Your task to perform on an android device: Go to settings Image 0: 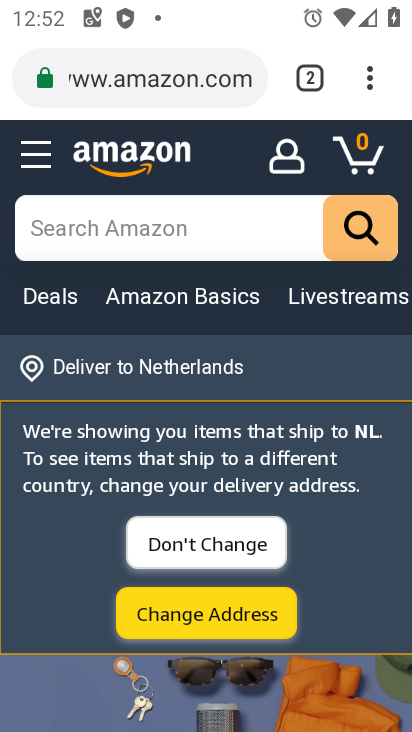
Step 0: press back button
Your task to perform on an android device: Go to settings Image 1: 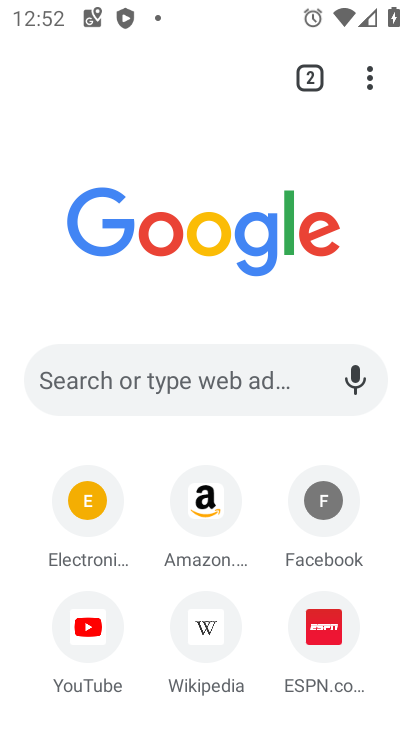
Step 1: press back button
Your task to perform on an android device: Go to settings Image 2: 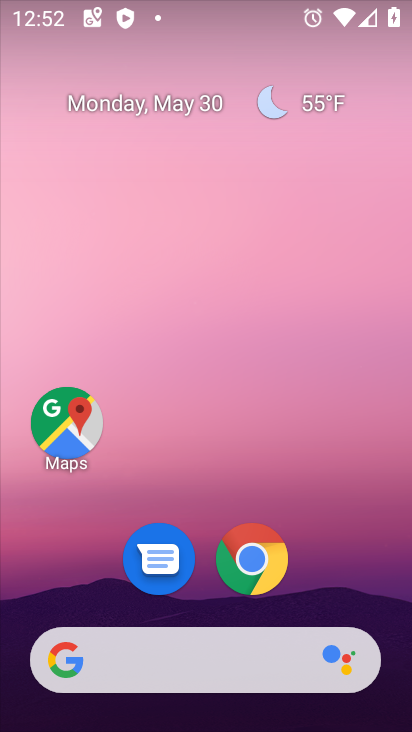
Step 2: drag from (237, 464) to (230, 0)
Your task to perform on an android device: Go to settings Image 3: 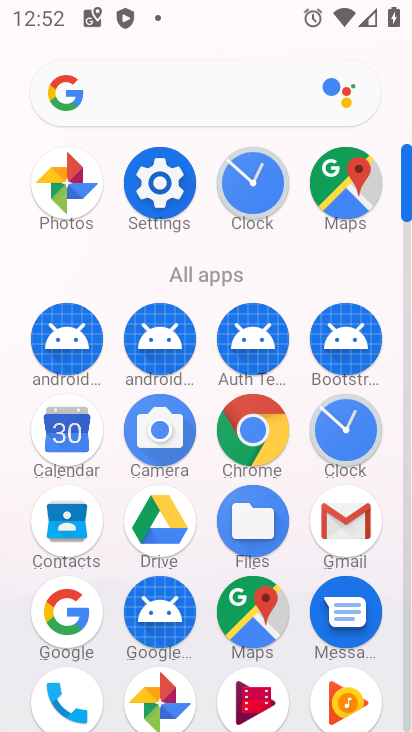
Step 3: click (163, 182)
Your task to perform on an android device: Go to settings Image 4: 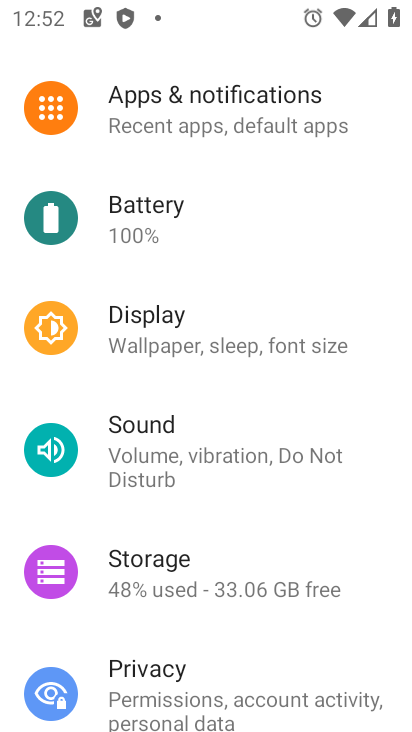
Step 4: task complete